Your task to perform on an android device: Show me recent news Image 0: 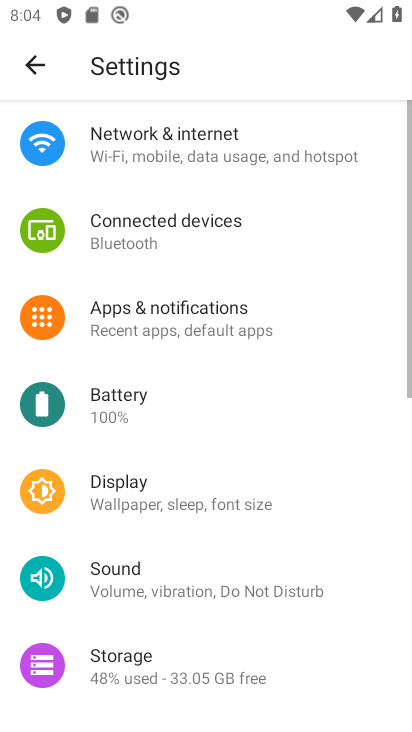
Step 0: press home button
Your task to perform on an android device: Show me recent news Image 1: 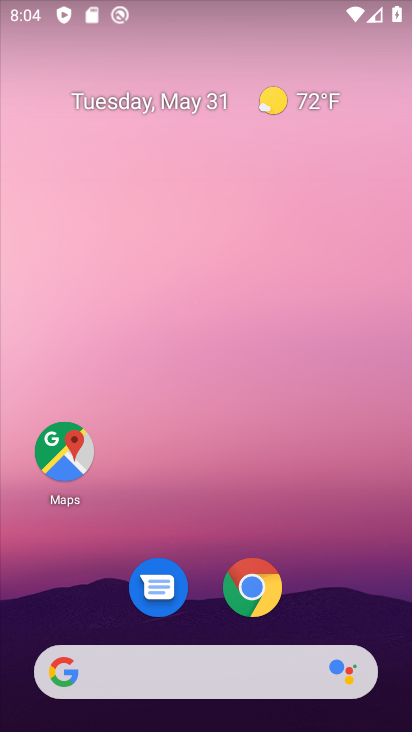
Step 1: click (153, 678)
Your task to perform on an android device: Show me recent news Image 2: 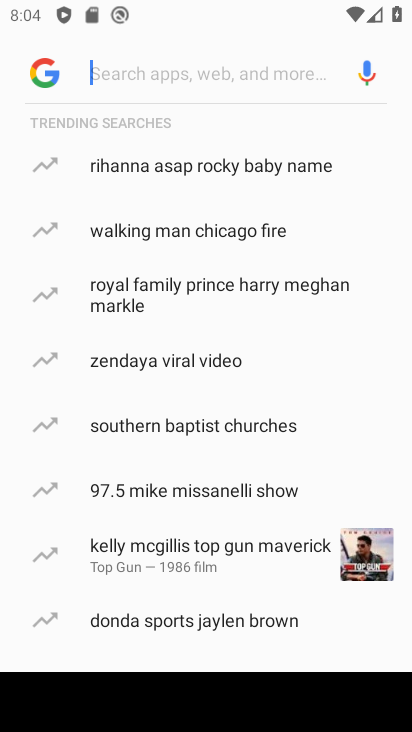
Step 2: click (35, 77)
Your task to perform on an android device: Show me recent news Image 3: 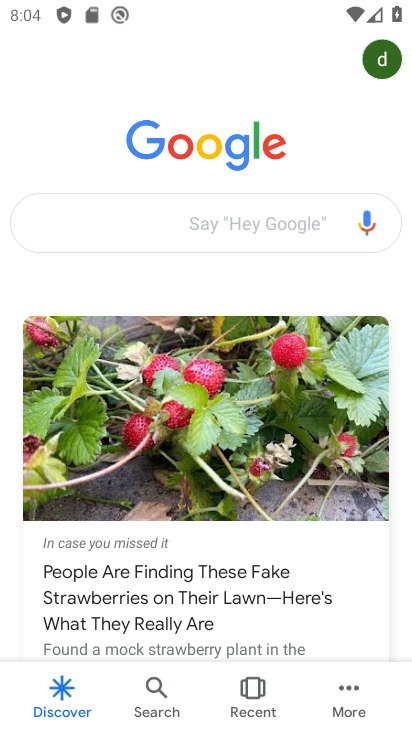
Step 3: task complete